Your task to perform on an android device: show emergency info Image 0: 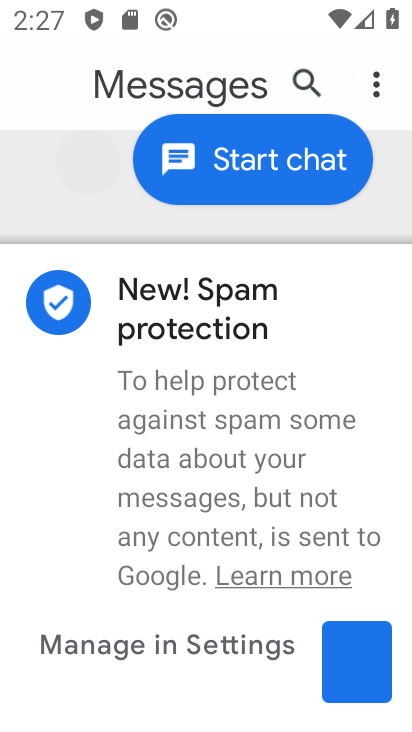
Step 0: press back button
Your task to perform on an android device: show emergency info Image 1: 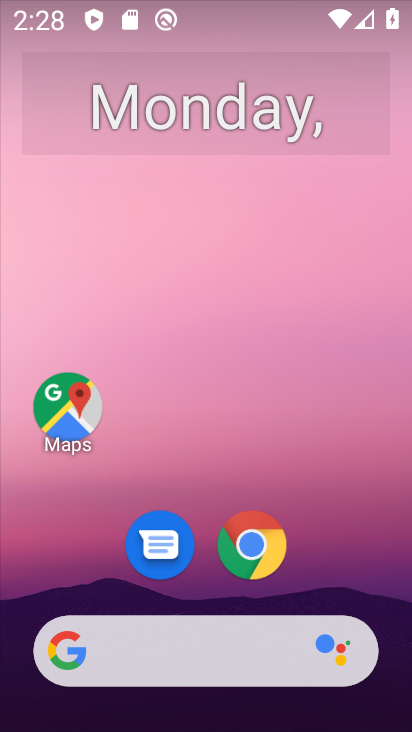
Step 1: drag from (205, 562) to (307, 104)
Your task to perform on an android device: show emergency info Image 2: 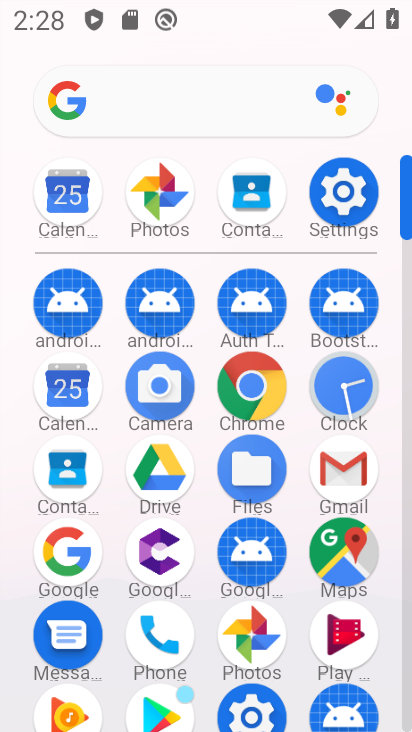
Step 2: click (341, 191)
Your task to perform on an android device: show emergency info Image 3: 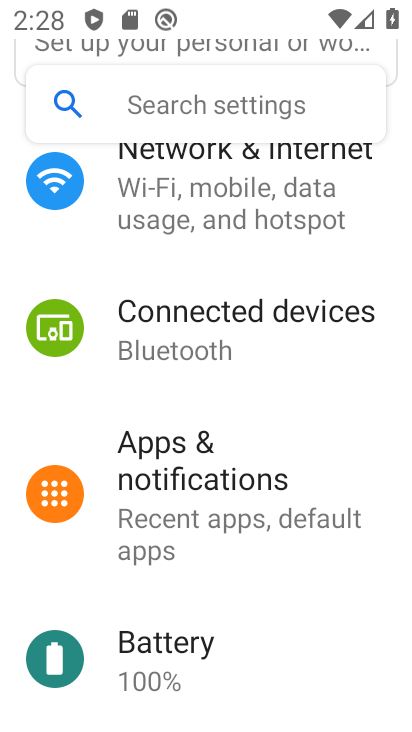
Step 3: drag from (244, 406) to (331, 51)
Your task to perform on an android device: show emergency info Image 4: 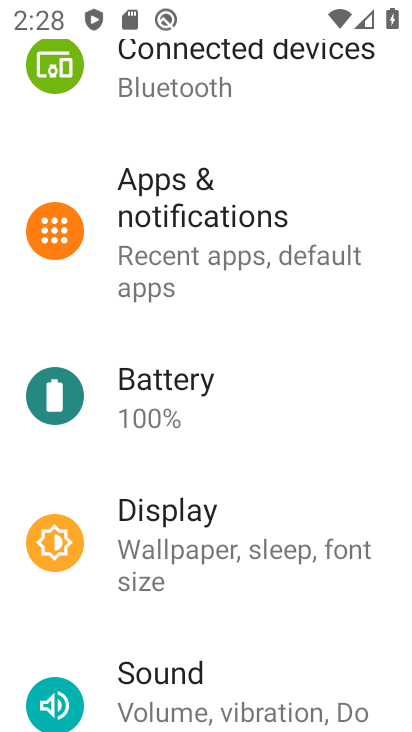
Step 4: drag from (185, 550) to (271, 130)
Your task to perform on an android device: show emergency info Image 5: 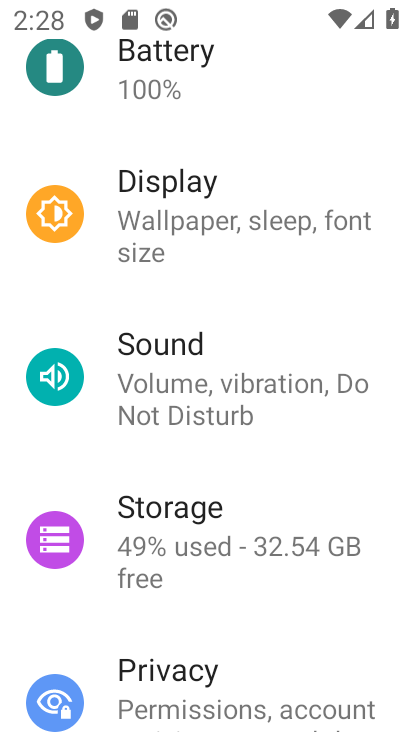
Step 5: drag from (168, 676) to (327, 35)
Your task to perform on an android device: show emergency info Image 6: 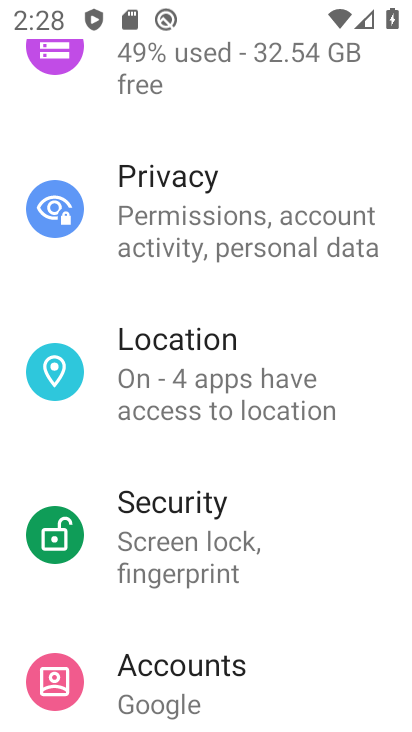
Step 6: drag from (216, 537) to (309, 32)
Your task to perform on an android device: show emergency info Image 7: 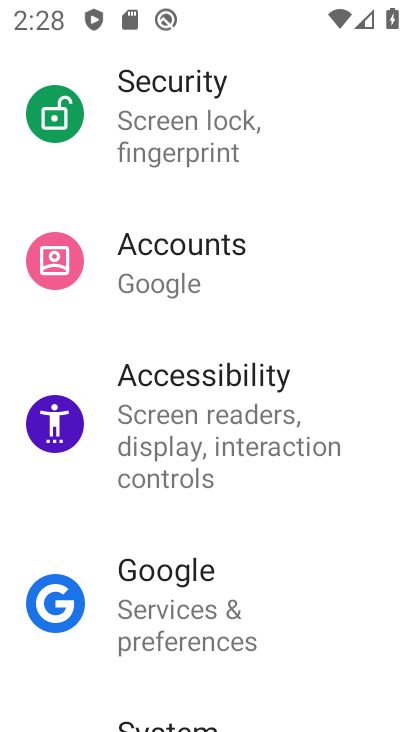
Step 7: drag from (165, 626) to (279, 153)
Your task to perform on an android device: show emergency info Image 8: 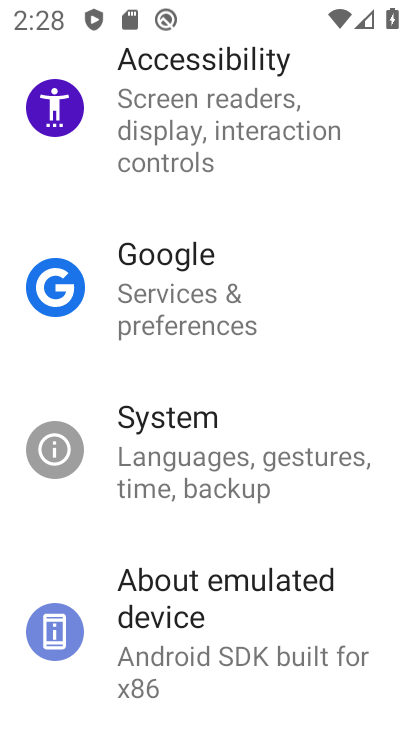
Step 8: click (231, 626)
Your task to perform on an android device: show emergency info Image 9: 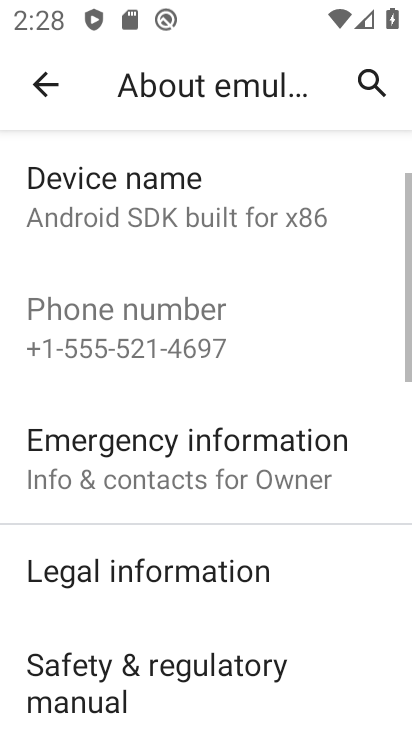
Step 9: click (143, 447)
Your task to perform on an android device: show emergency info Image 10: 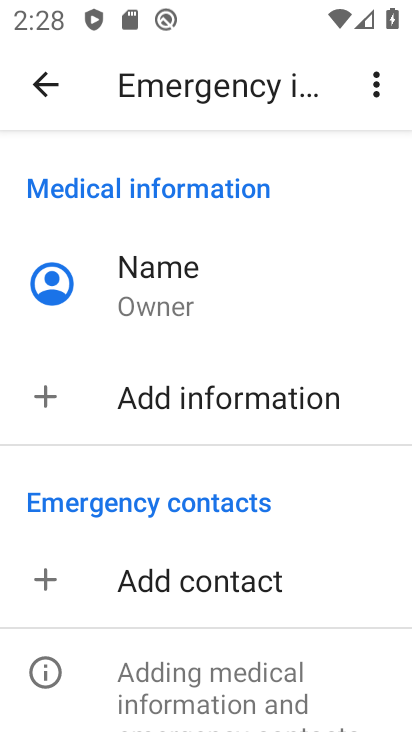
Step 10: task complete